Your task to perform on an android device: see creations saved in the google photos Image 0: 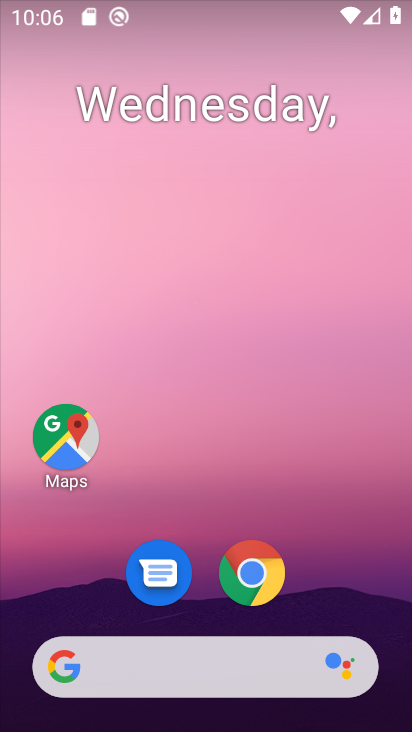
Step 0: drag from (314, 370) to (317, 134)
Your task to perform on an android device: see creations saved in the google photos Image 1: 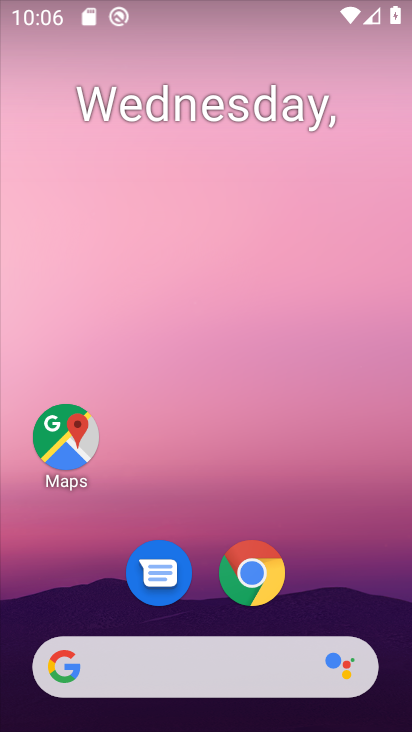
Step 1: drag from (345, 465) to (361, 101)
Your task to perform on an android device: see creations saved in the google photos Image 2: 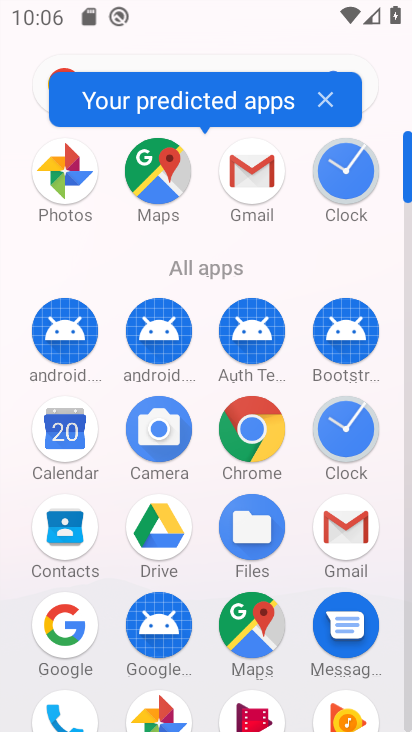
Step 2: drag from (201, 664) to (216, 262)
Your task to perform on an android device: see creations saved in the google photos Image 3: 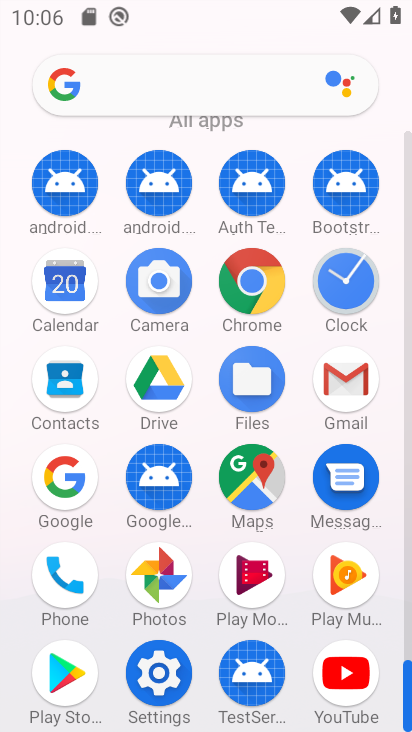
Step 3: click (154, 571)
Your task to perform on an android device: see creations saved in the google photos Image 4: 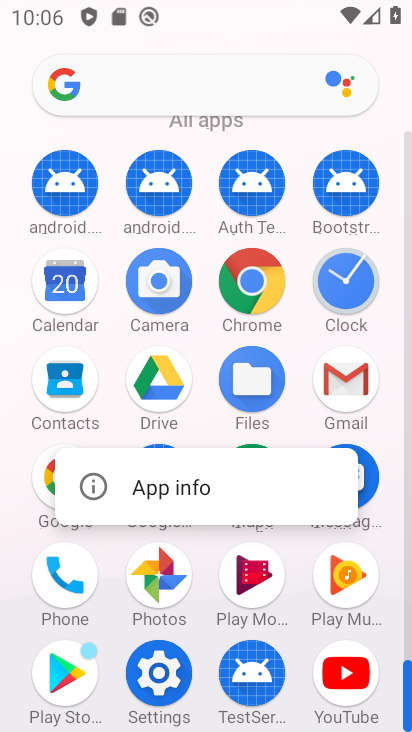
Step 4: click (157, 585)
Your task to perform on an android device: see creations saved in the google photos Image 5: 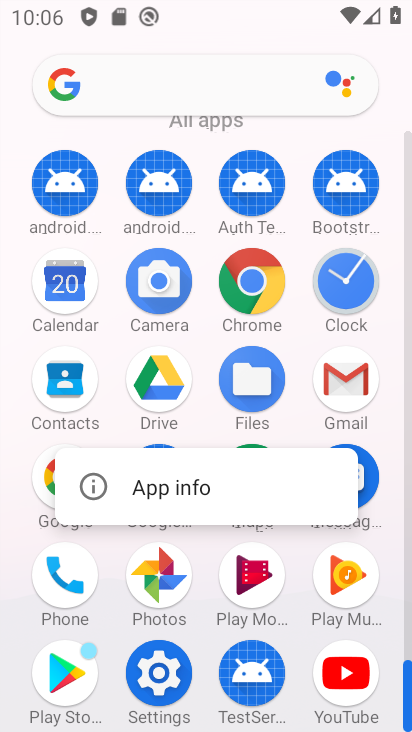
Step 5: click (153, 581)
Your task to perform on an android device: see creations saved in the google photos Image 6: 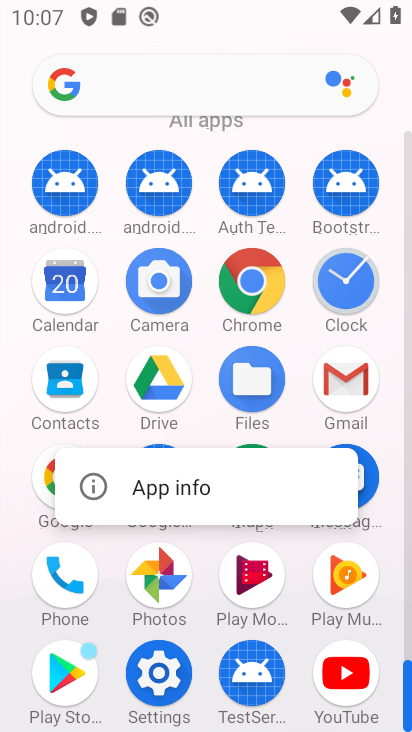
Step 6: click (155, 580)
Your task to perform on an android device: see creations saved in the google photos Image 7: 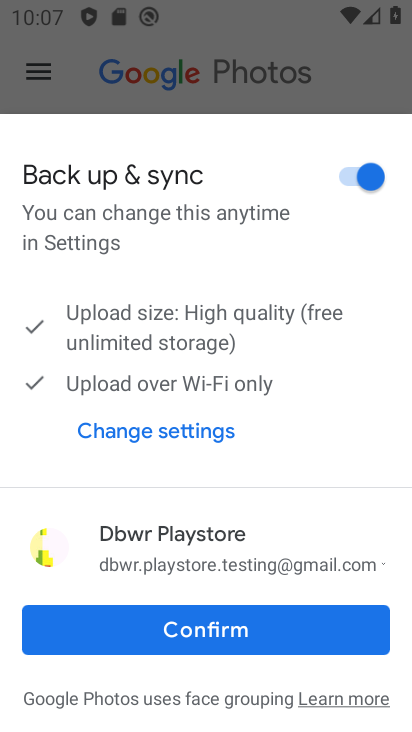
Step 7: click (160, 631)
Your task to perform on an android device: see creations saved in the google photos Image 8: 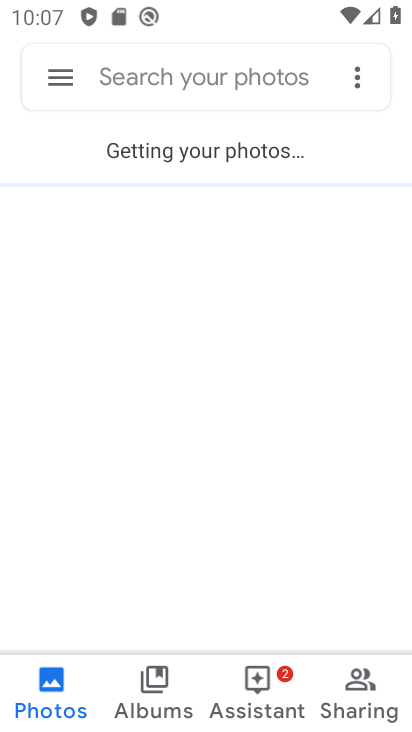
Step 8: click (209, 77)
Your task to perform on an android device: see creations saved in the google photos Image 9: 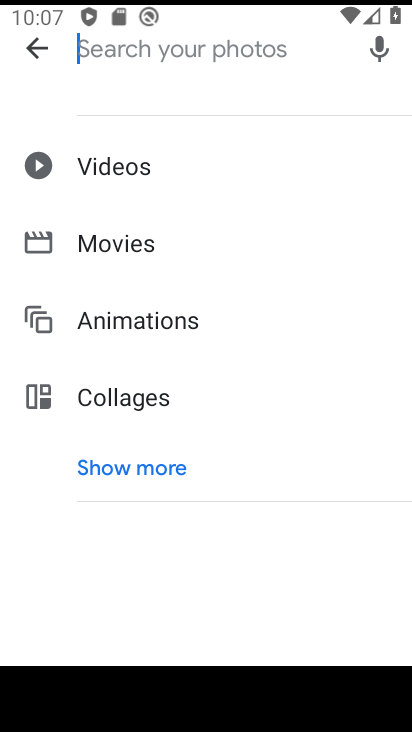
Step 9: click (120, 474)
Your task to perform on an android device: see creations saved in the google photos Image 10: 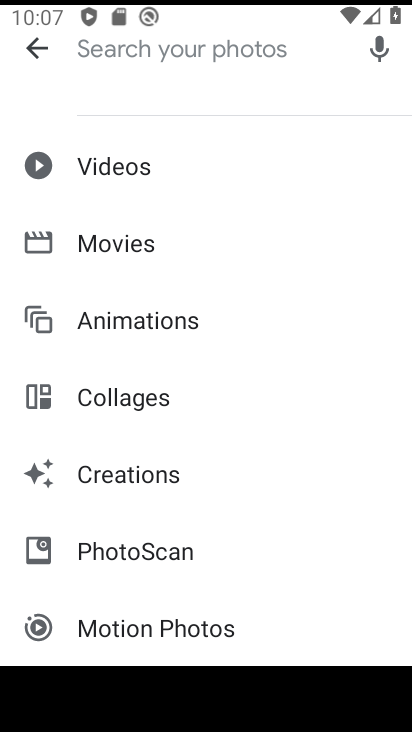
Step 10: click (127, 475)
Your task to perform on an android device: see creations saved in the google photos Image 11: 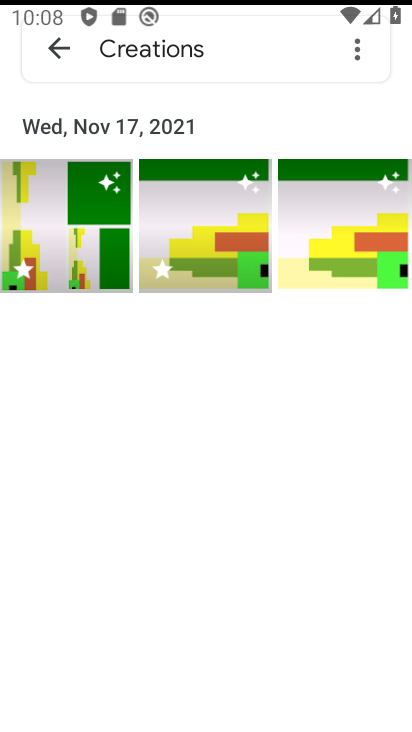
Step 11: task complete